Your task to perform on an android device: toggle priority inbox in the gmail app Image 0: 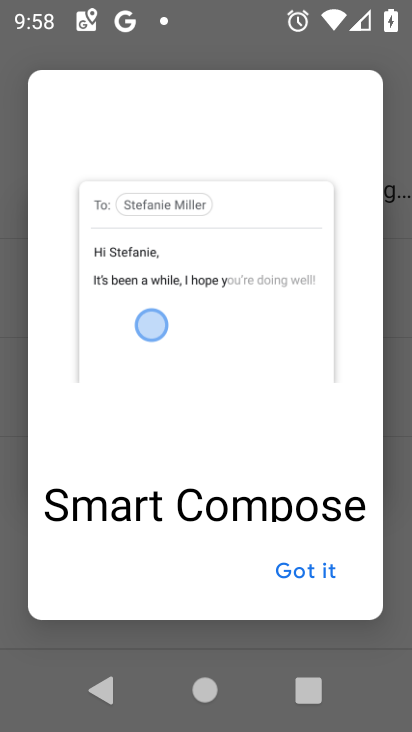
Step 0: press home button
Your task to perform on an android device: toggle priority inbox in the gmail app Image 1: 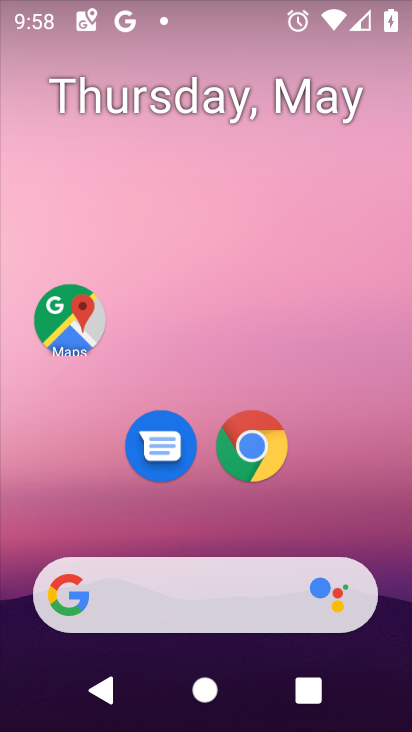
Step 1: drag from (371, 486) to (325, 107)
Your task to perform on an android device: toggle priority inbox in the gmail app Image 2: 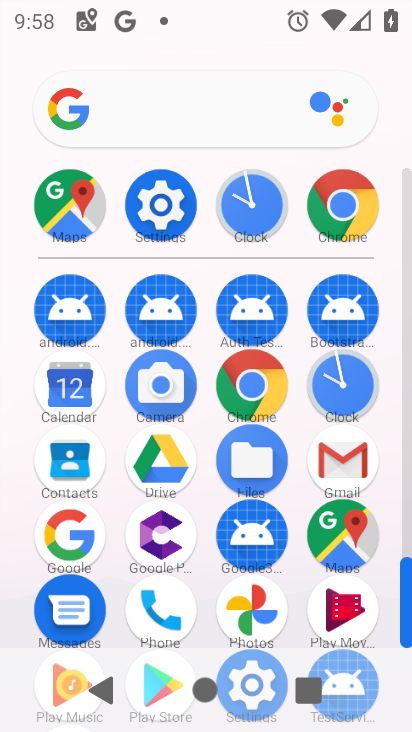
Step 2: click (321, 463)
Your task to perform on an android device: toggle priority inbox in the gmail app Image 3: 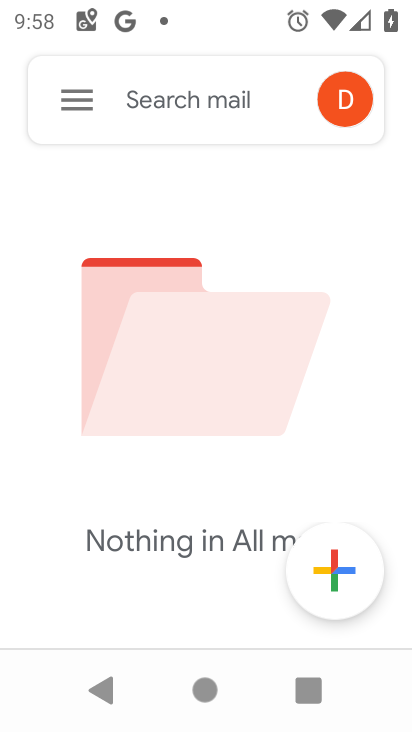
Step 3: click (82, 99)
Your task to perform on an android device: toggle priority inbox in the gmail app Image 4: 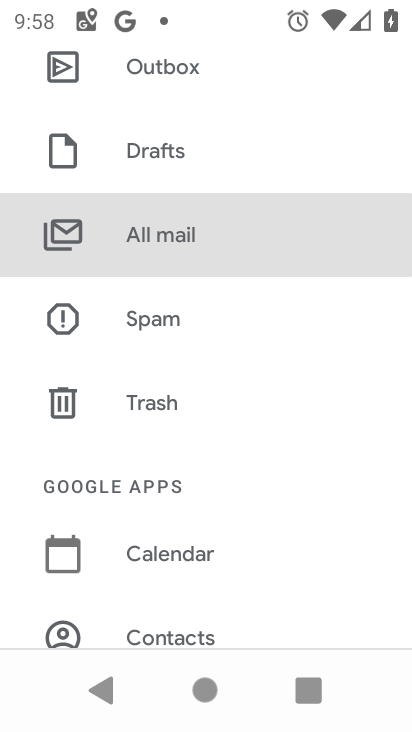
Step 4: drag from (225, 623) to (214, 100)
Your task to perform on an android device: toggle priority inbox in the gmail app Image 5: 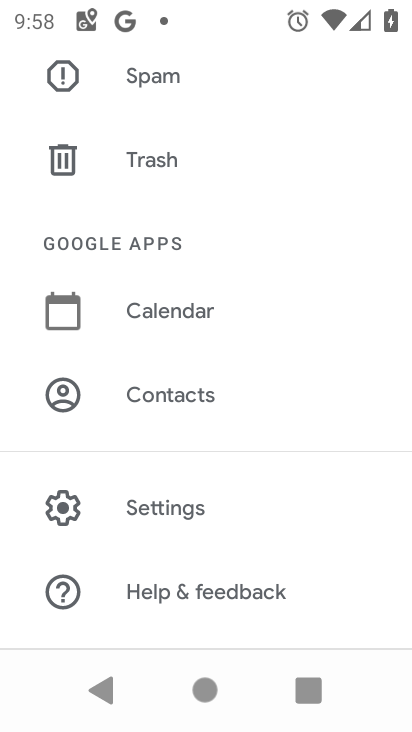
Step 5: click (230, 520)
Your task to perform on an android device: toggle priority inbox in the gmail app Image 6: 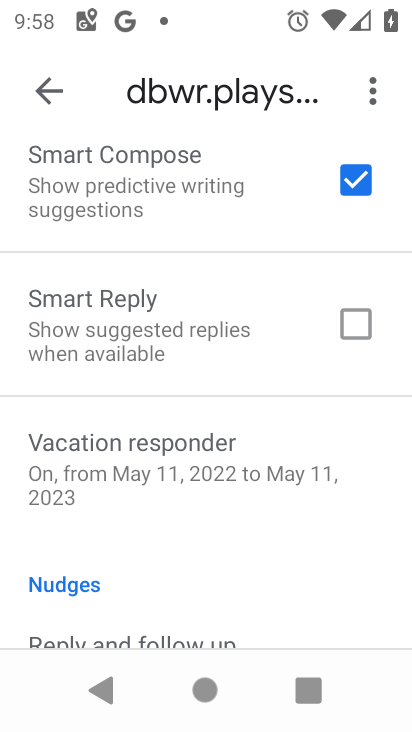
Step 6: drag from (229, 542) to (228, 249)
Your task to perform on an android device: toggle priority inbox in the gmail app Image 7: 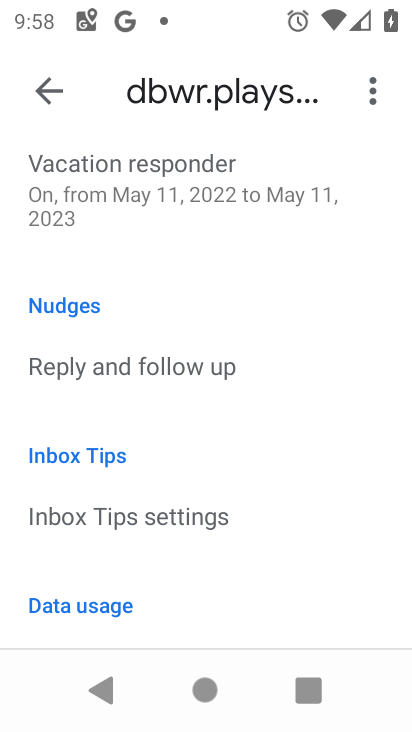
Step 7: drag from (230, 168) to (238, 541)
Your task to perform on an android device: toggle priority inbox in the gmail app Image 8: 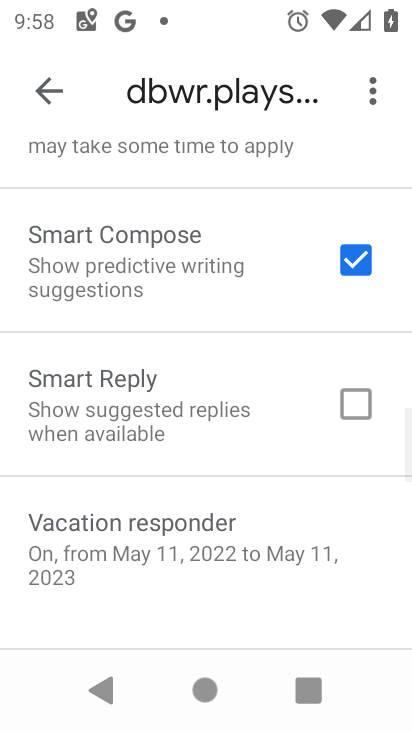
Step 8: drag from (210, 211) to (217, 526)
Your task to perform on an android device: toggle priority inbox in the gmail app Image 9: 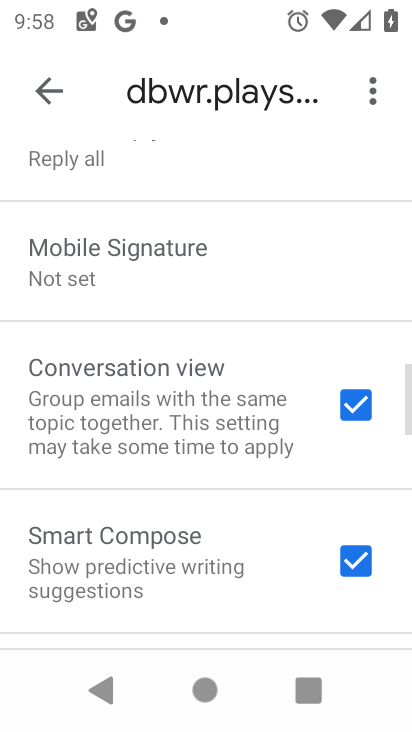
Step 9: drag from (212, 203) to (215, 539)
Your task to perform on an android device: toggle priority inbox in the gmail app Image 10: 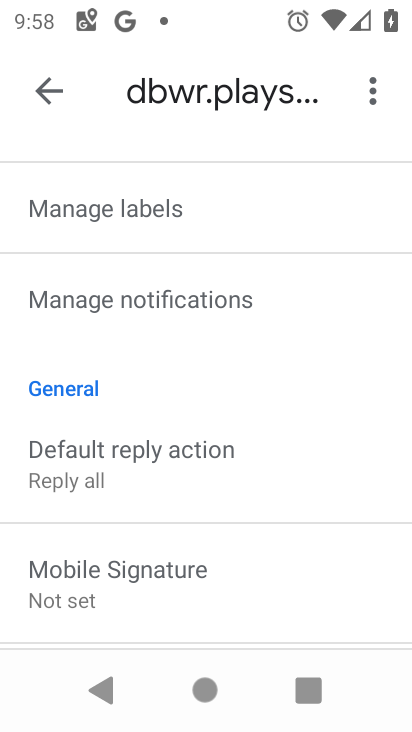
Step 10: drag from (188, 298) to (193, 587)
Your task to perform on an android device: toggle priority inbox in the gmail app Image 11: 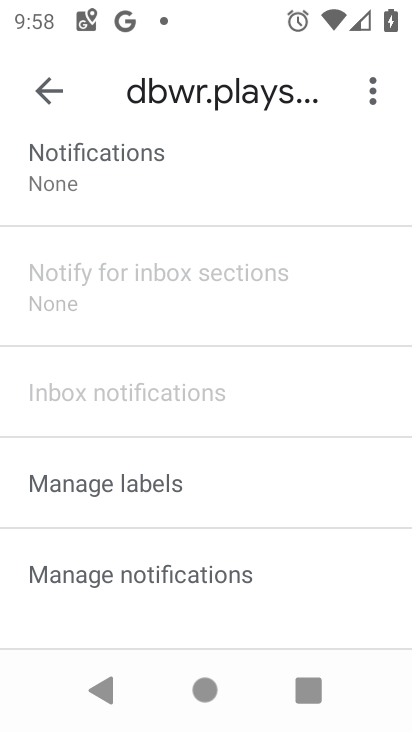
Step 11: drag from (180, 219) to (211, 609)
Your task to perform on an android device: toggle priority inbox in the gmail app Image 12: 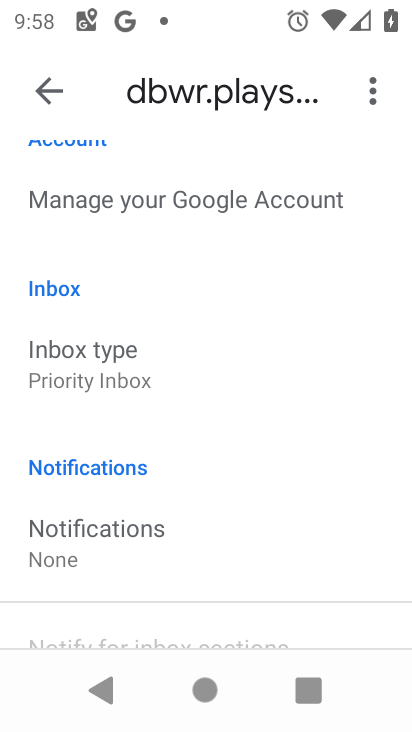
Step 12: drag from (146, 213) to (210, 676)
Your task to perform on an android device: toggle priority inbox in the gmail app Image 13: 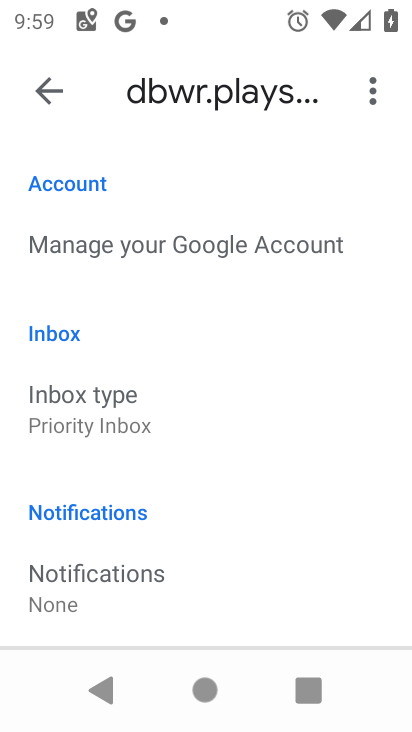
Step 13: click (138, 397)
Your task to perform on an android device: toggle priority inbox in the gmail app Image 14: 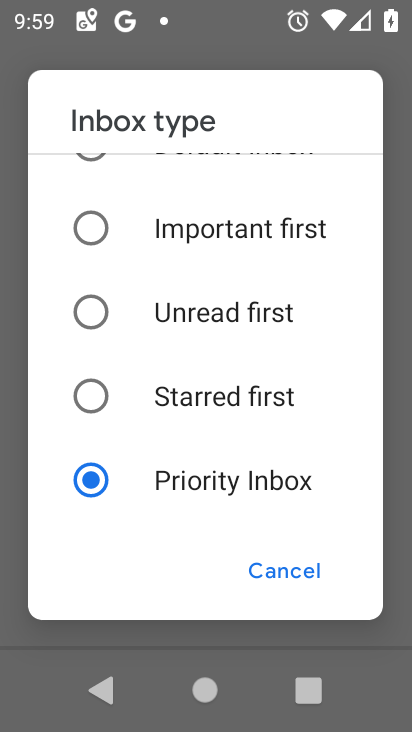
Step 14: drag from (117, 211) to (133, 504)
Your task to perform on an android device: toggle priority inbox in the gmail app Image 15: 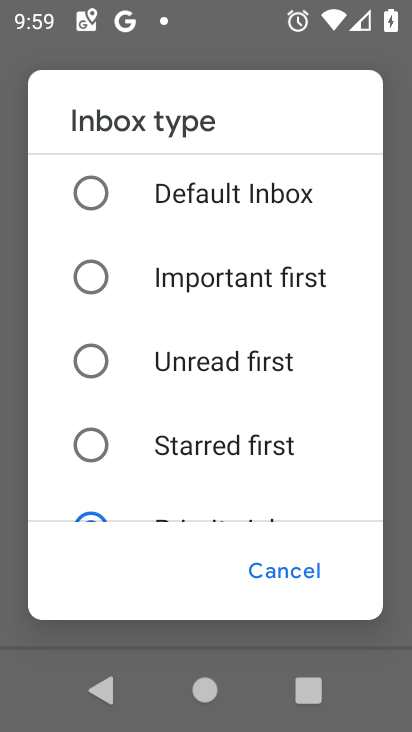
Step 15: click (86, 147)
Your task to perform on an android device: toggle priority inbox in the gmail app Image 16: 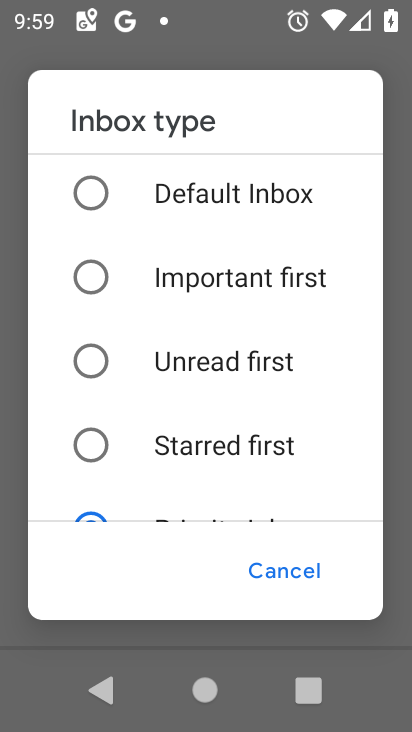
Step 16: click (91, 190)
Your task to perform on an android device: toggle priority inbox in the gmail app Image 17: 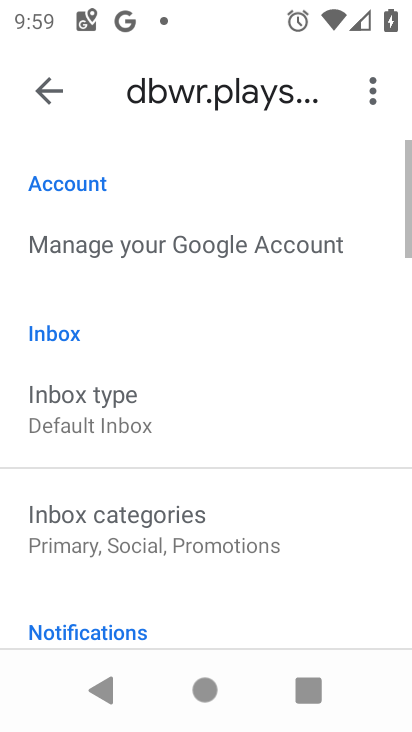
Step 17: task complete